Your task to perform on an android device: Check the news Image 0: 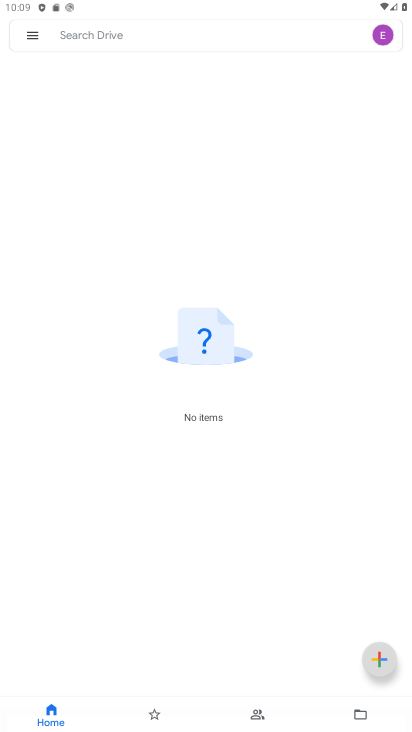
Step 0: press home button
Your task to perform on an android device: Check the news Image 1: 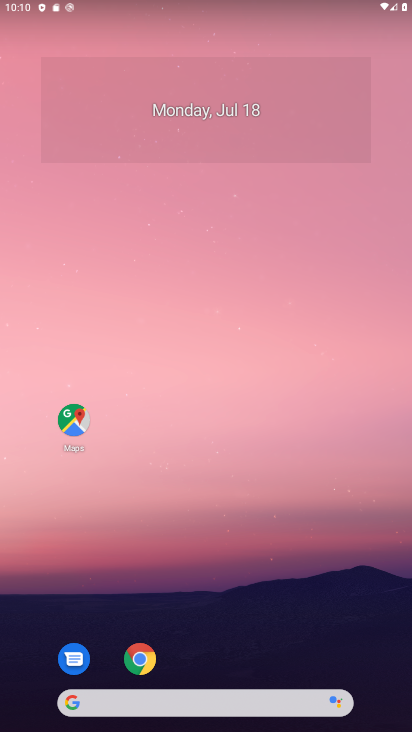
Step 1: click (201, 684)
Your task to perform on an android device: Check the news Image 2: 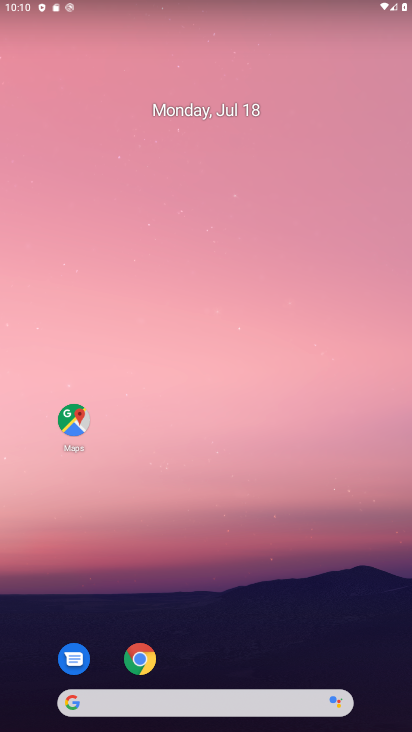
Step 2: click (201, 704)
Your task to perform on an android device: Check the news Image 3: 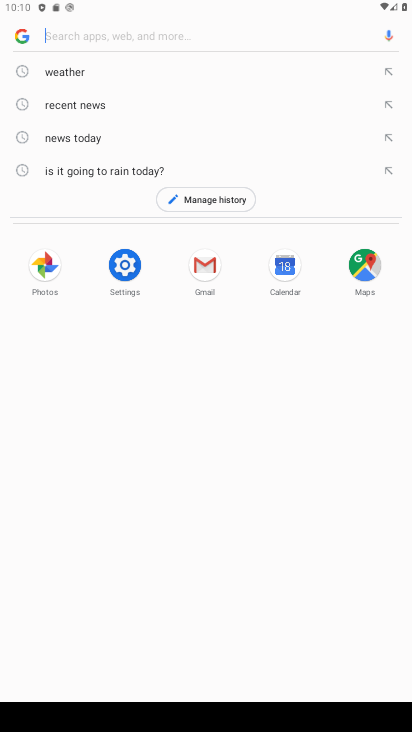
Step 3: type "Check the news"
Your task to perform on an android device: Check the news Image 4: 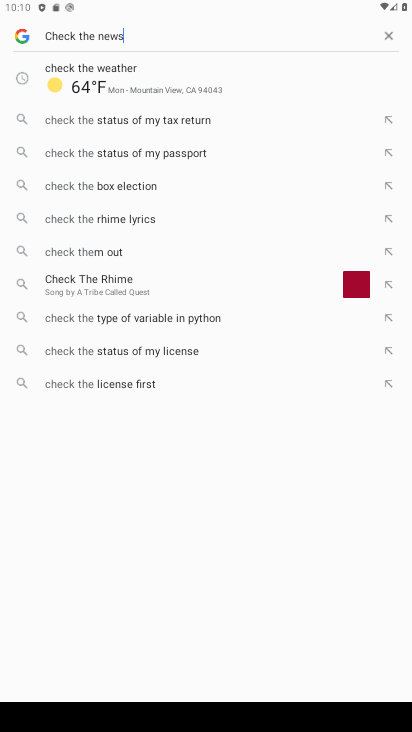
Step 4: press enter
Your task to perform on an android device: Check the news Image 5: 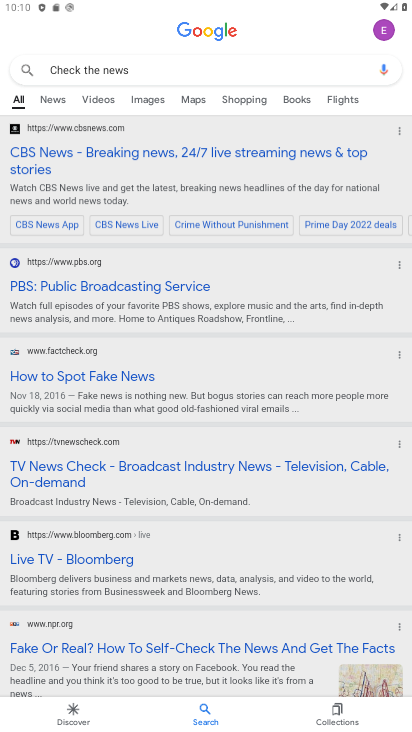
Step 5: task complete